Your task to perform on an android device: stop showing notifications on the lock screen Image 0: 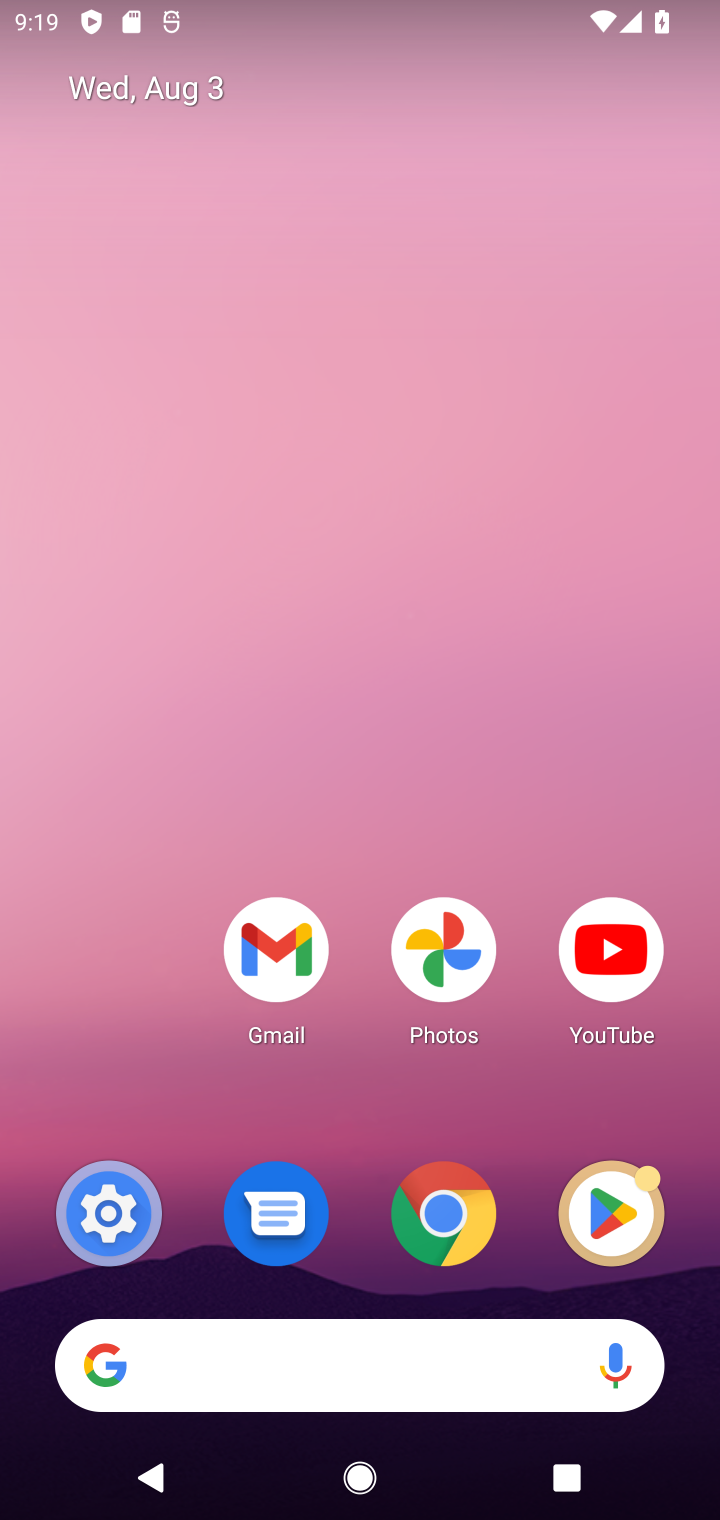
Step 0: click (141, 1192)
Your task to perform on an android device: stop showing notifications on the lock screen Image 1: 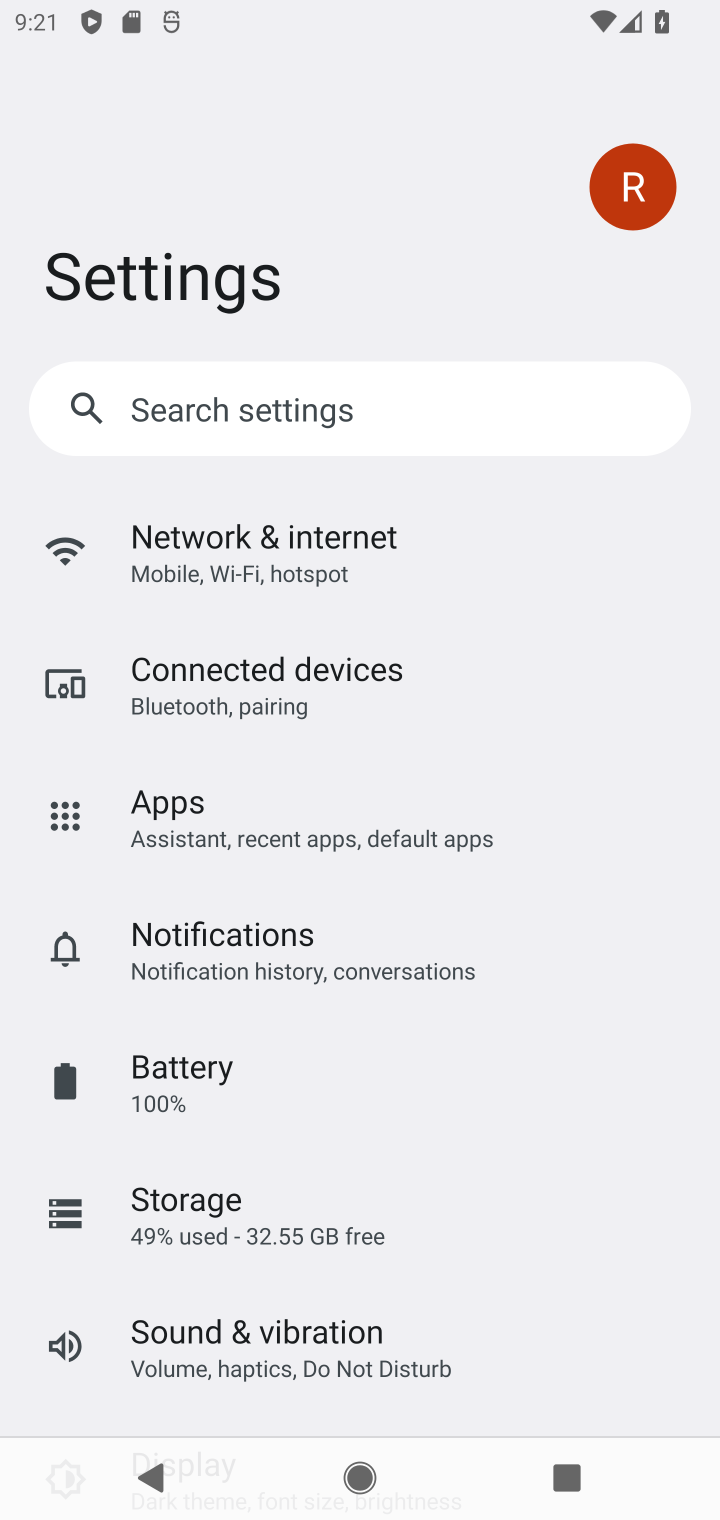
Step 1: click (250, 943)
Your task to perform on an android device: stop showing notifications on the lock screen Image 2: 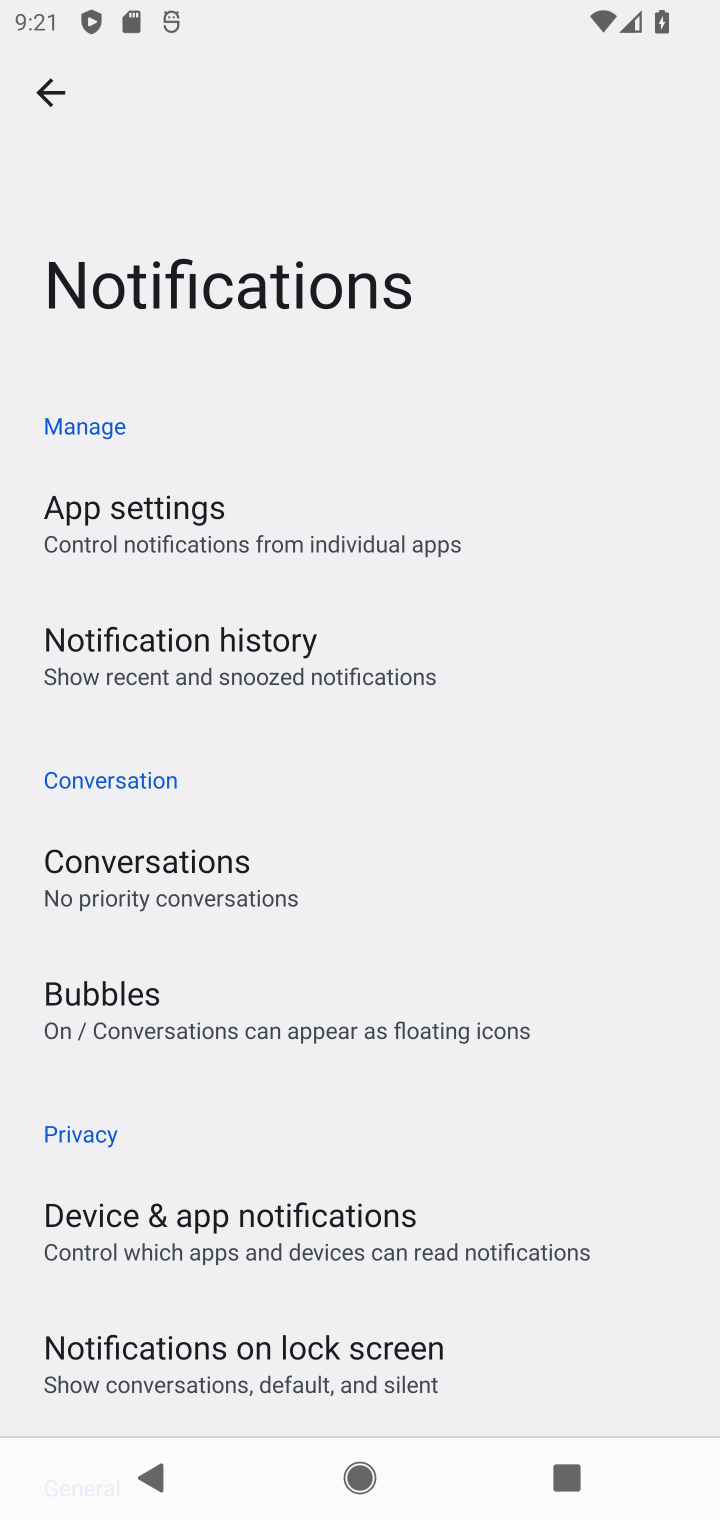
Step 2: drag from (295, 1145) to (279, 523)
Your task to perform on an android device: stop showing notifications on the lock screen Image 3: 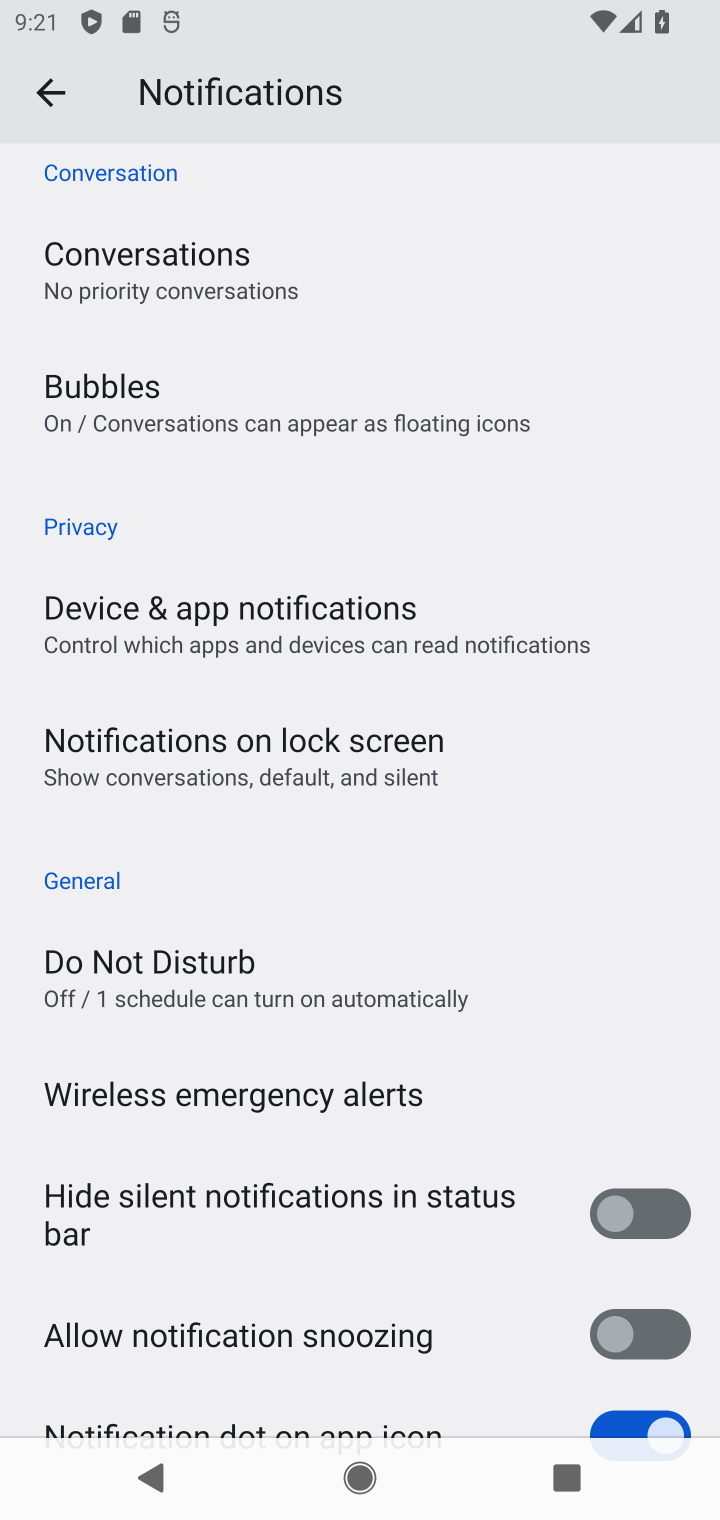
Step 3: click (353, 783)
Your task to perform on an android device: stop showing notifications on the lock screen Image 4: 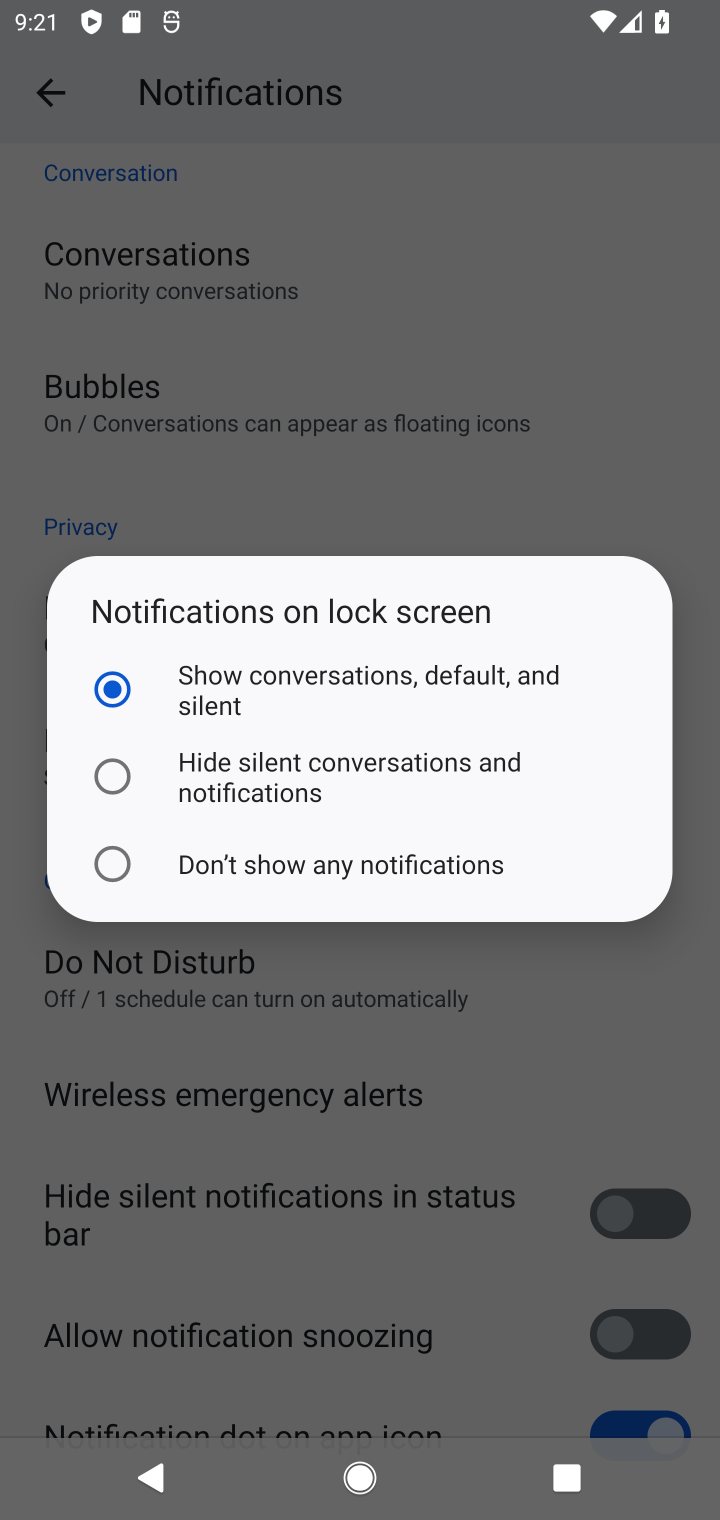
Step 4: click (354, 877)
Your task to perform on an android device: stop showing notifications on the lock screen Image 5: 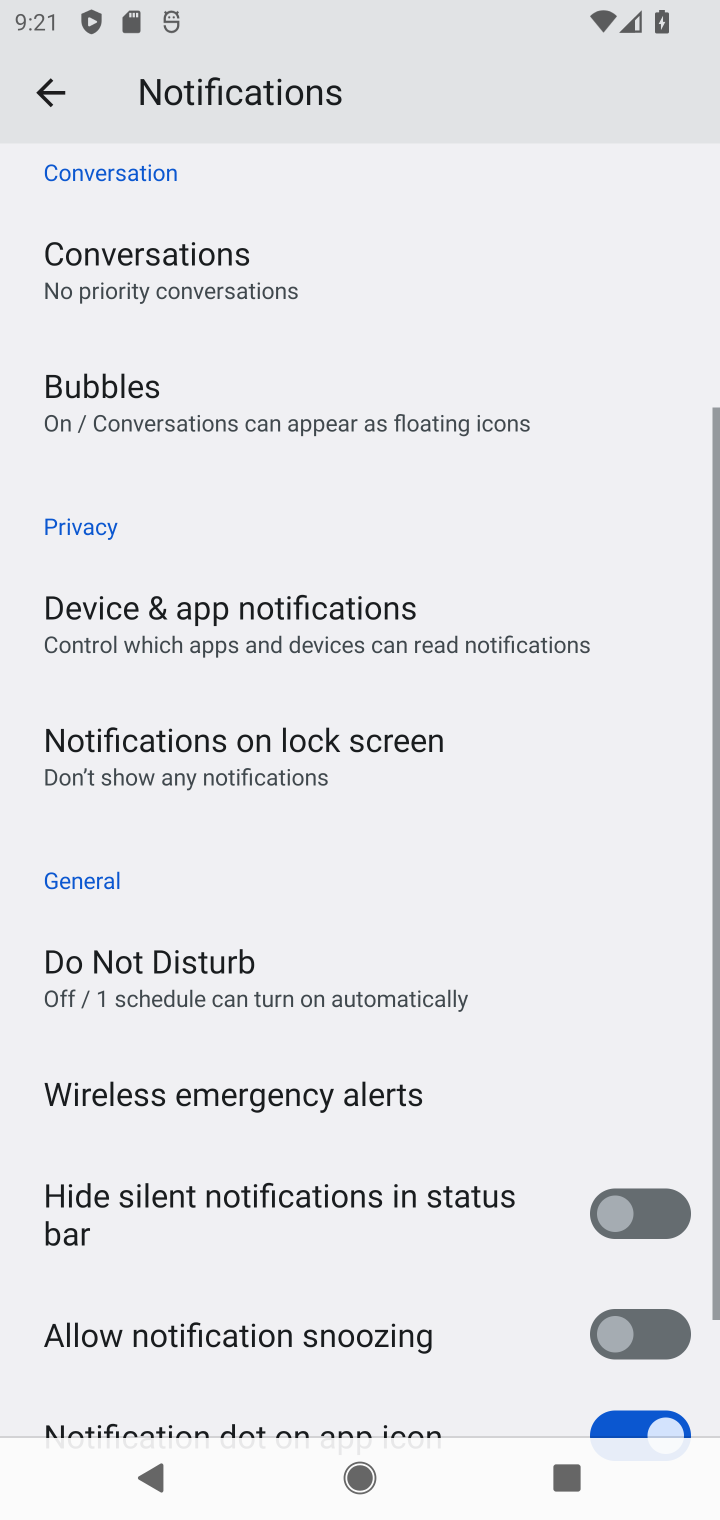
Step 5: task complete